Your task to perform on an android device: visit the assistant section in the google photos Image 0: 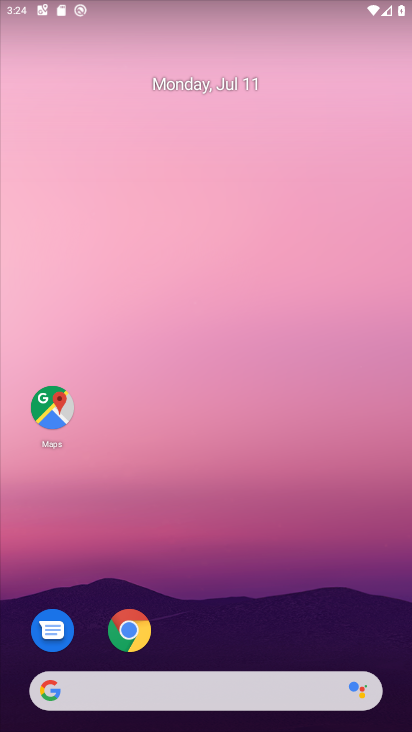
Step 0: drag from (216, 641) to (238, 201)
Your task to perform on an android device: visit the assistant section in the google photos Image 1: 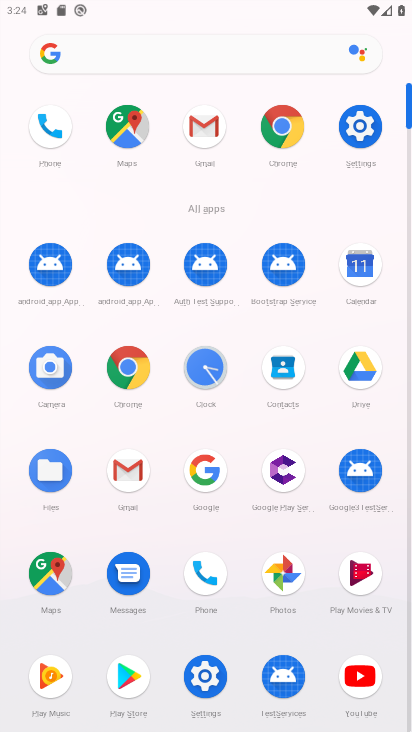
Step 1: click (288, 564)
Your task to perform on an android device: visit the assistant section in the google photos Image 2: 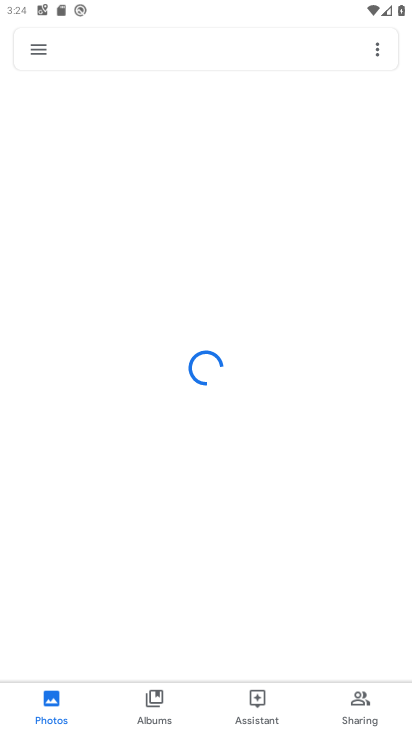
Step 2: click (241, 719)
Your task to perform on an android device: visit the assistant section in the google photos Image 3: 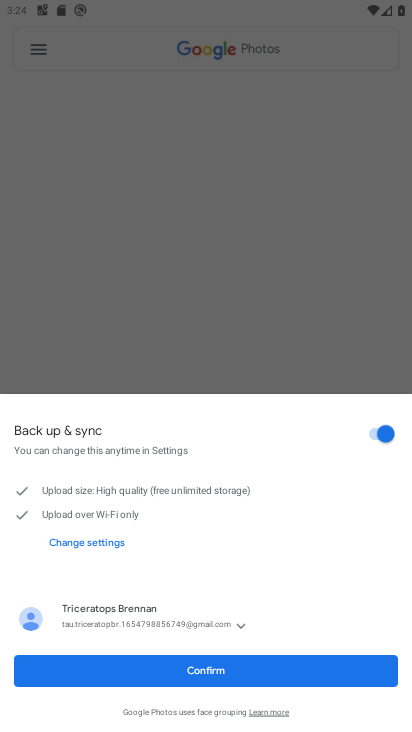
Step 3: task complete